Your task to perform on an android device: uninstall "Duolingo: language lessons" Image 0: 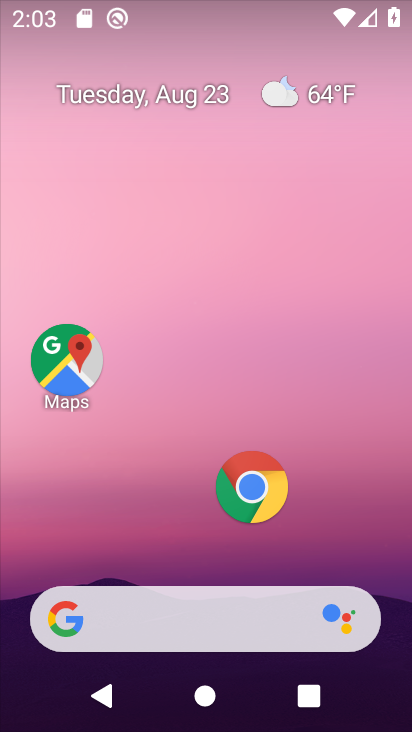
Step 0: drag from (168, 545) to (194, 197)
Your task to perform on an android device: uninstall "Duolingo: language lessons" Image 1: 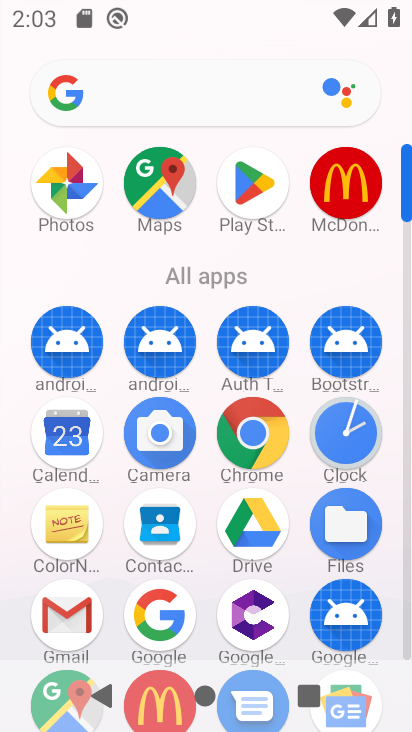
Step 1: click (235, 184)
Your task to perform on an android device: uninstall "Duolingo: language lessons" Image 2: 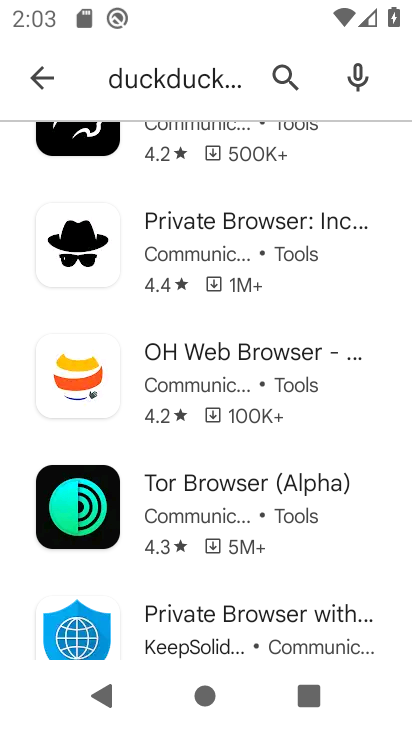
Step 2: click (29, 95)
Your task to perform on an android device: uninstall "Duolingo: language lessons" Image 3: 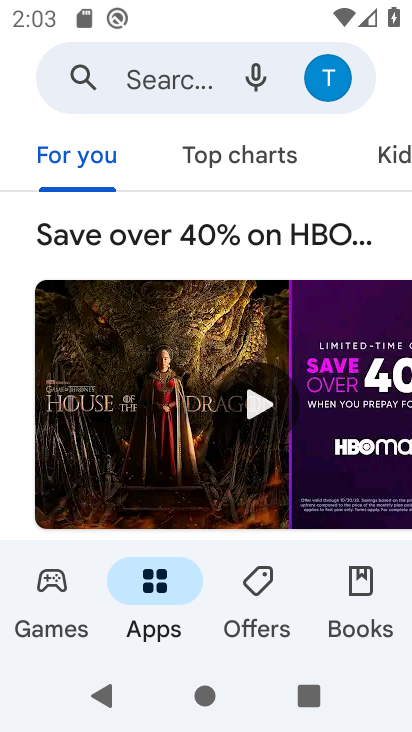
Step 3: click (156, 59)
Your task to perform on an android device: uninstall "Duolingo: language lessons" Image 4: 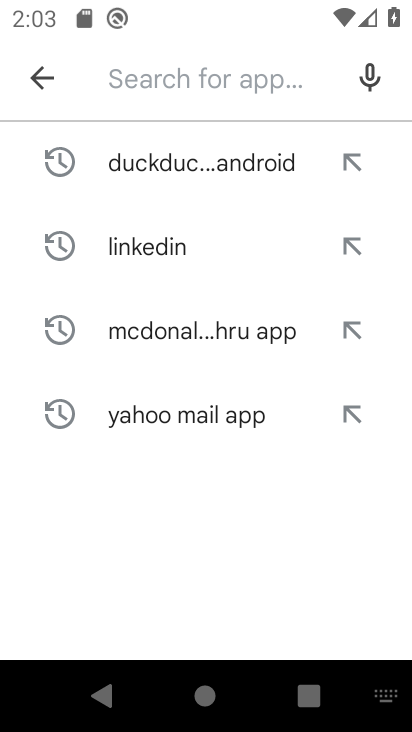
Step 4: type "DuckDuckGo Privacy Browse "
Your task to perform on an android device: uninstall "Duolingo: language lessons" Image 5: 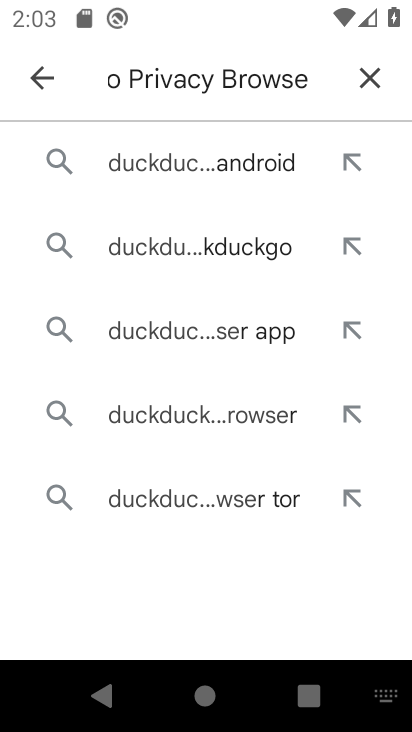
Step 5: click (175, 166)
Your task to perform on an android device: uninstall "Duolingo: language lessons" Image 6: 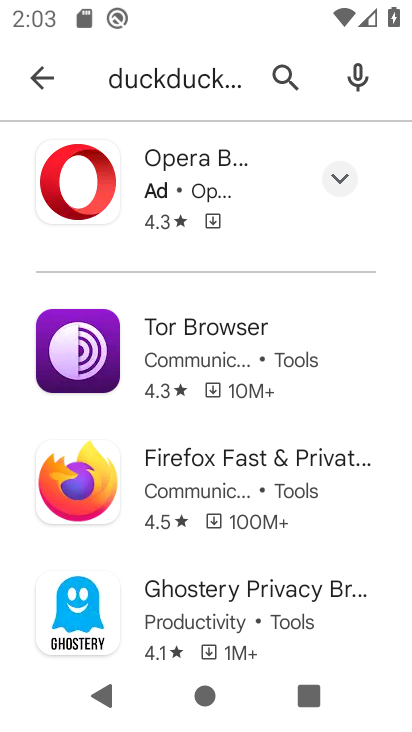
Step 6: task complete